Your task to perform on an android device: Go to Maps Image 0: 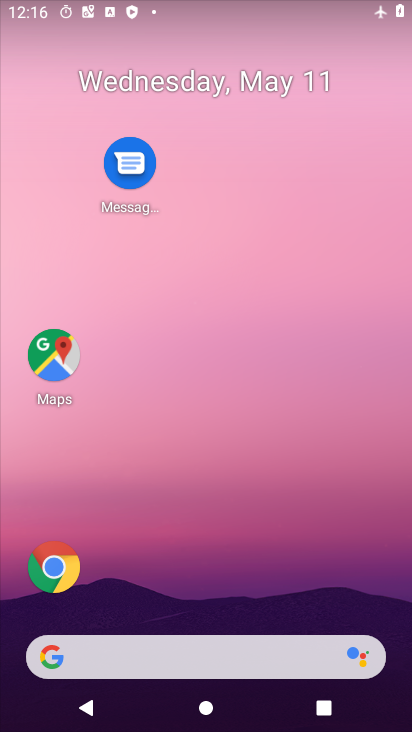
Step 0: drag from (137, 582) to (255, 144)
Your task to perform on an android device: Go to Maps Image 1: 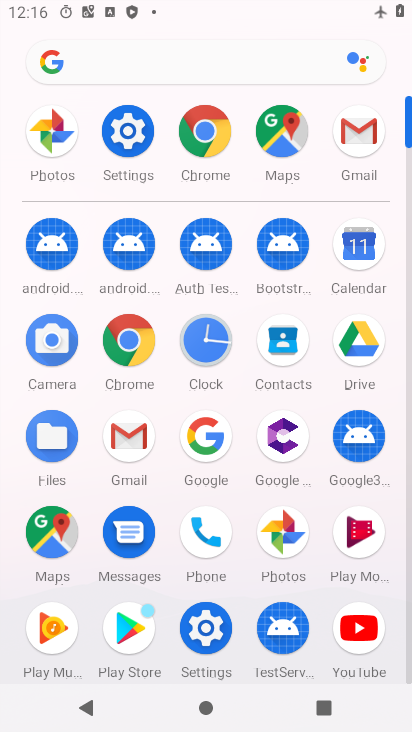
Step 1: click (58, 543)
Your task to perform on an android device: Go to Maps Image 2: 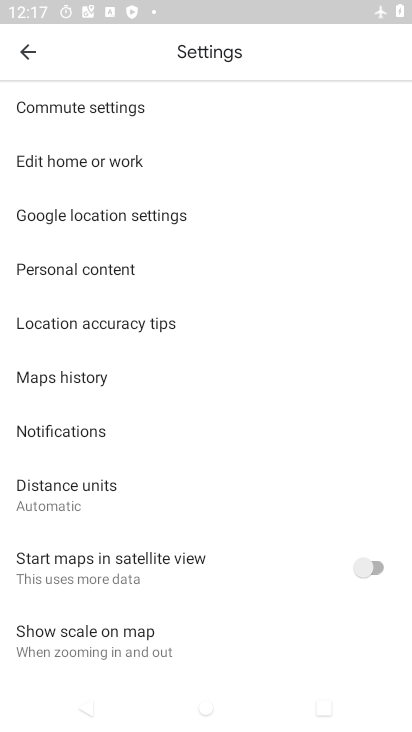
Step 2: click (19, 44)
Your task to perform on an android device: Go to Maps Image 3: 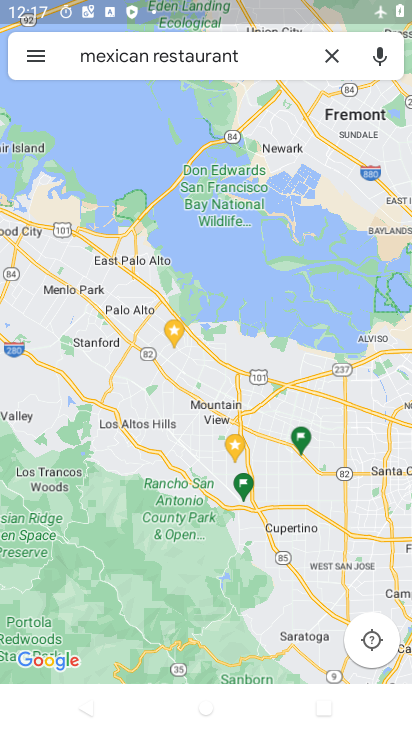
Step 3: task complete